Your task to perform on an android device: Open my contact list Image 0: 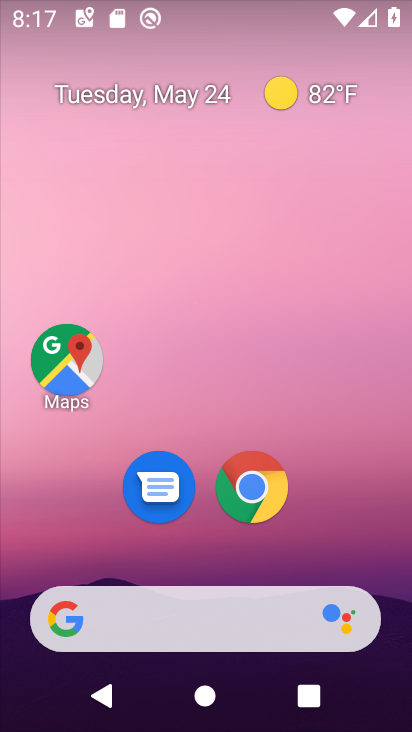
Step 0: drag from (332, 540) to (360, 151)
Your task to perform on an android device: Open my contact list Image 1: 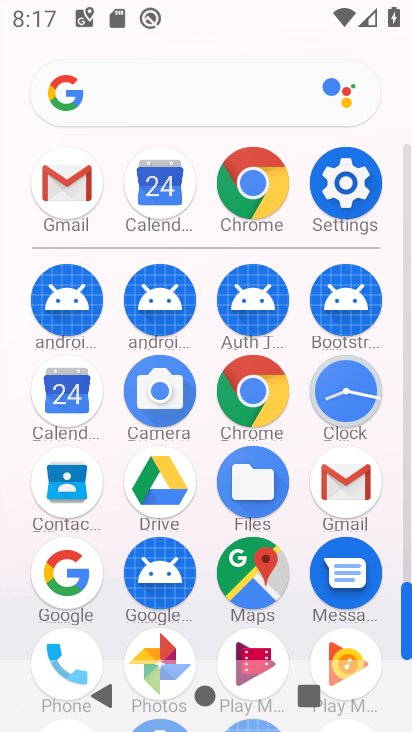
Step 1: click (53, 476)
Your task to perform on an android device: Open my contact list Image 2: 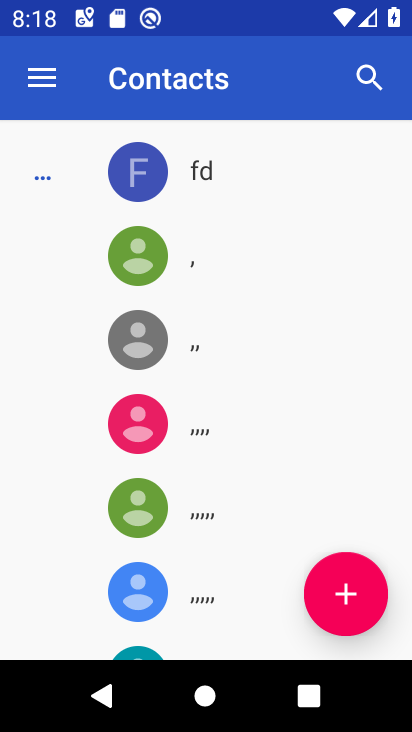
Step 2: task complete